Your task to perform on an android device: Open the Play Movies app and select the watchlist tab. Image 0: 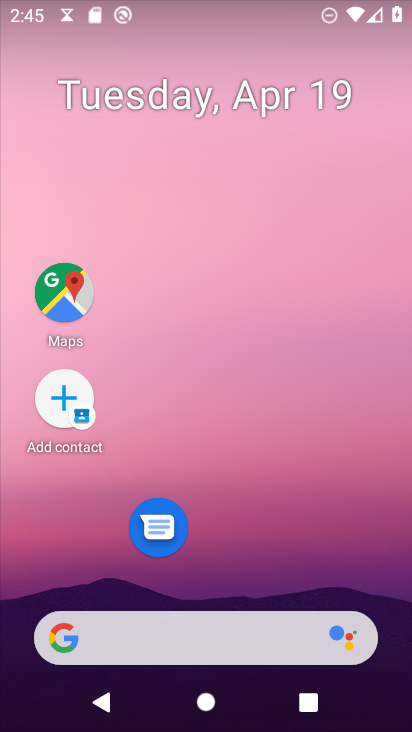
Step 0: drag from (255, 552) to (297, 30)
Your task to perform on an android device: Open the Play Movies app and select the watchlist tab. Image 1: 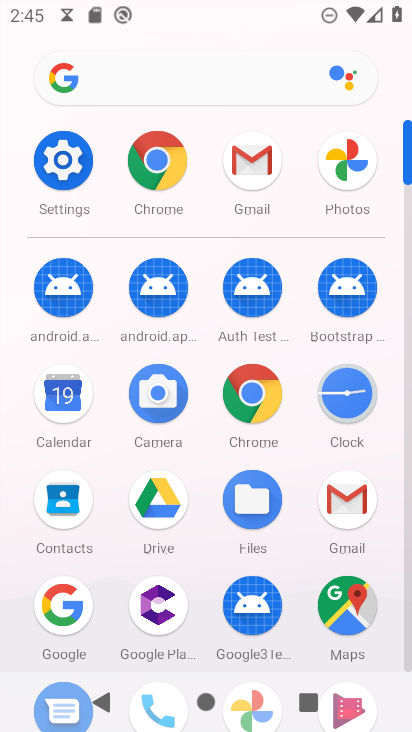
Step 1: drag from (295, 571) to (274, 358)
Your task to perform on an android device: Open the Play Movies app and select the watchlist tab. Image 2: 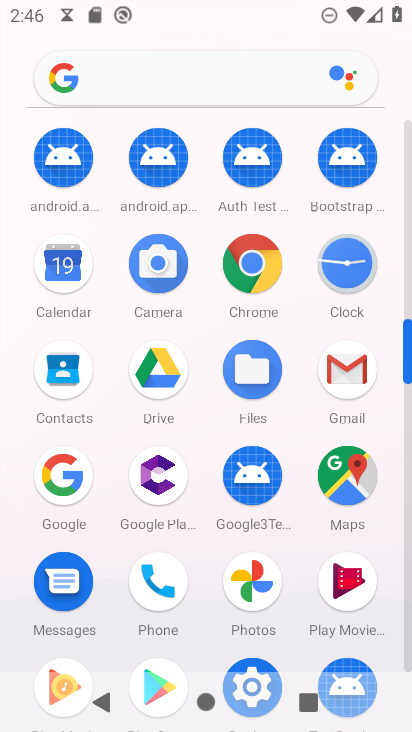
Step 2: click (339, 584)
Your task to perform on an android device: Open the Play Movies app and select the watchlist tab. Image 3: 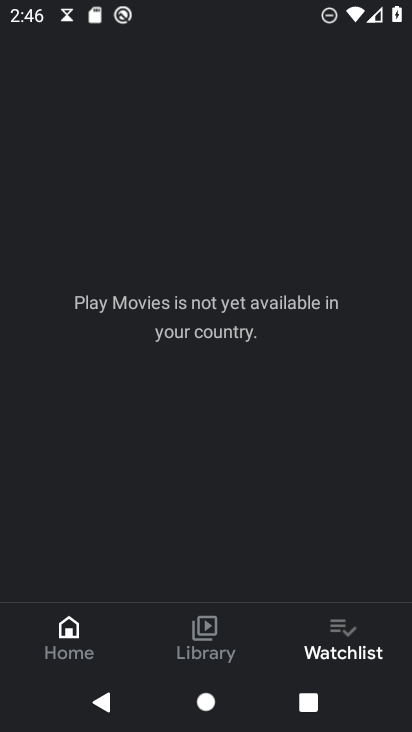
Step 3: click (343, 624)
Your task to perform on an android device: Open the Play Movies app and select the watchlist tab. Image 4: 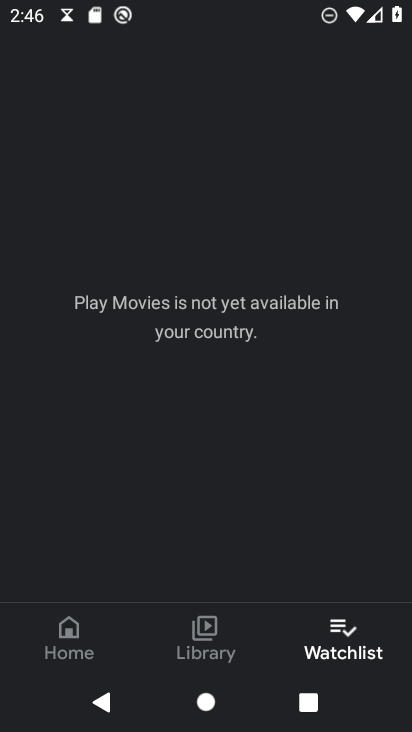
Step 4: task complete